Your task to perform on an android device: Open the Play Movies app and select the watchlist tab. Image 0: 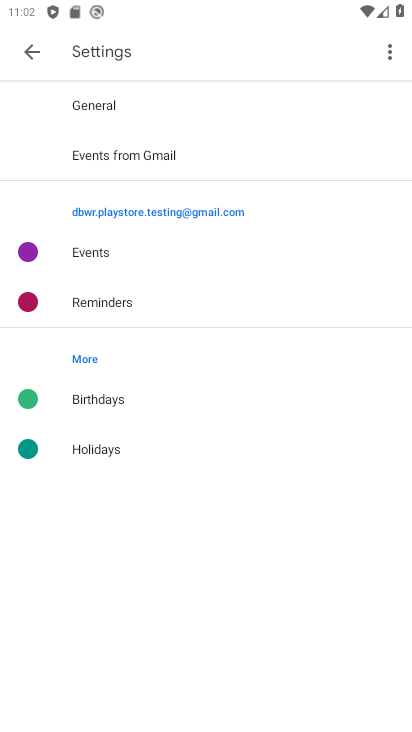
Step 0: press home button
Your task to perform on an android device: Open the Play Movies app and select the watchlist tab. Image 1: 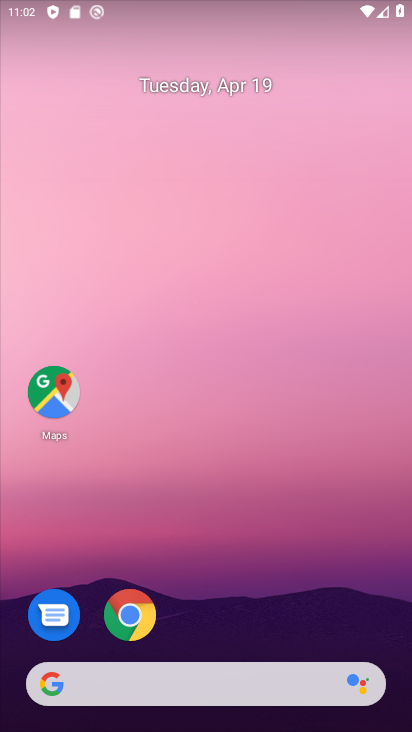
Step 1: drag from (286, 559) to (316, 92)
Your task to perform on an android device: Open the Play Movies app and select the watchlist tab. Image 2: 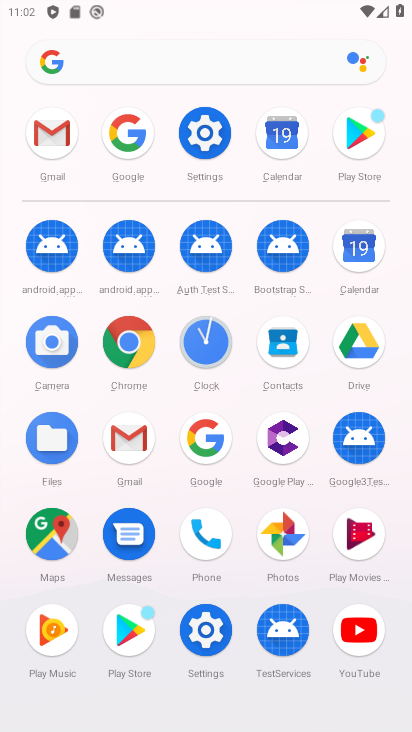
Step 2: click (359, 533)
Your task to perform on an android device: Open the Play Movies app and select the watchlist tab. Image 3: 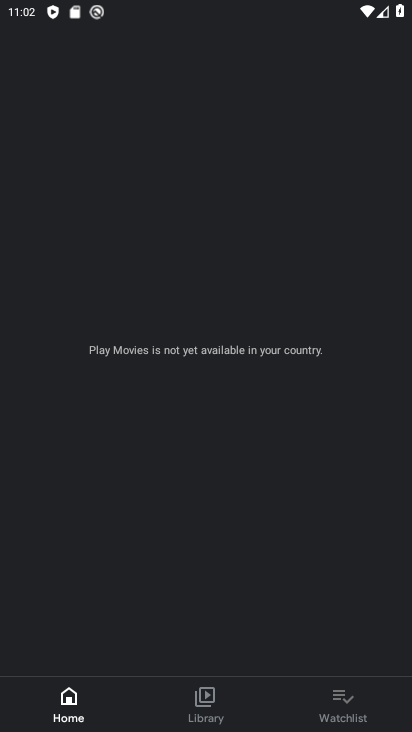
Step 3: click (352, 702)
Your task to perform on an android device: Open the Play Movies app and select the watchlist tab. Image 4: 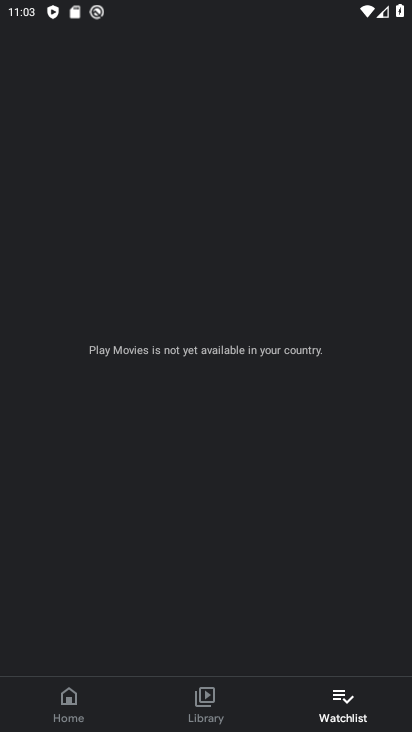
Step 4: task complete